Your task to perform on an android device: What's the weather going to be tomorrow? Image 0: 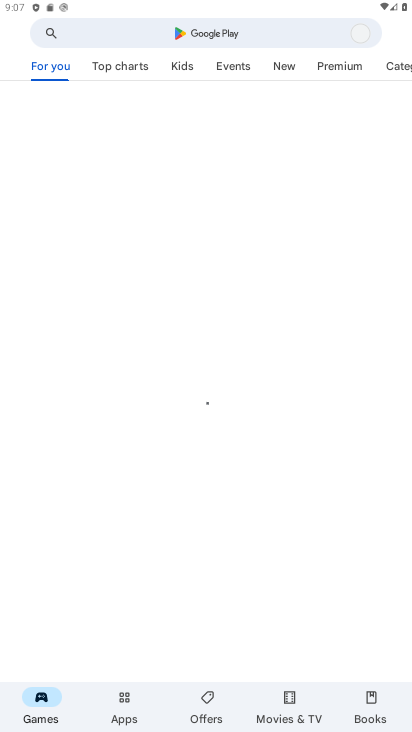
Step 0: press home button
Your task to perform on an android device: What's the weather going to be tomorrow? Image 1: 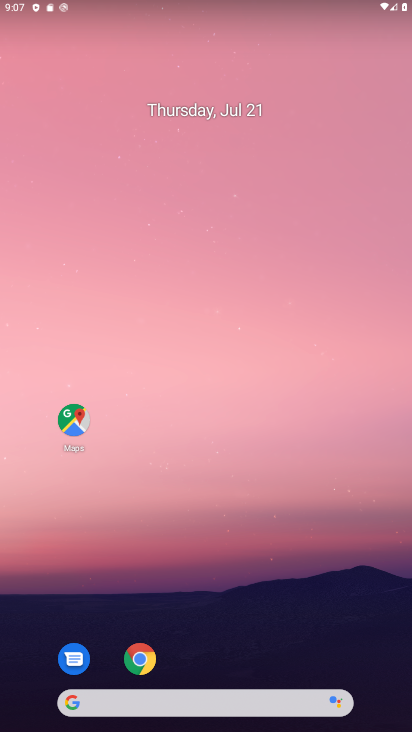
Step 1: click (198, 715)
Your task to perform on an android device: What's the weather going to be tomorrow? Image 2: 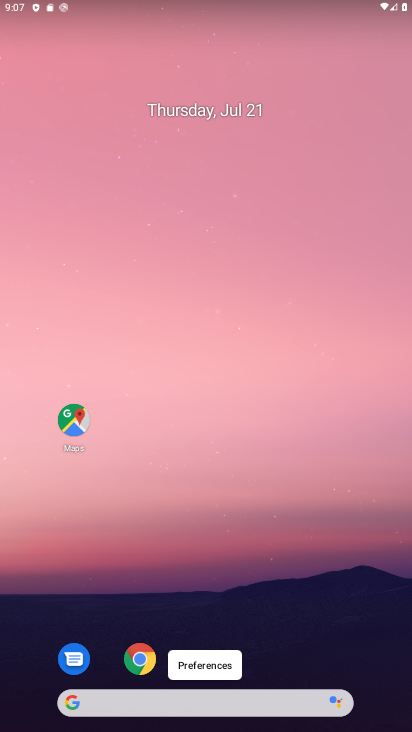
Step 2: click (211, 696)
Your task to perform on an android device: What's the weather going to be tomorrow? Image 3: 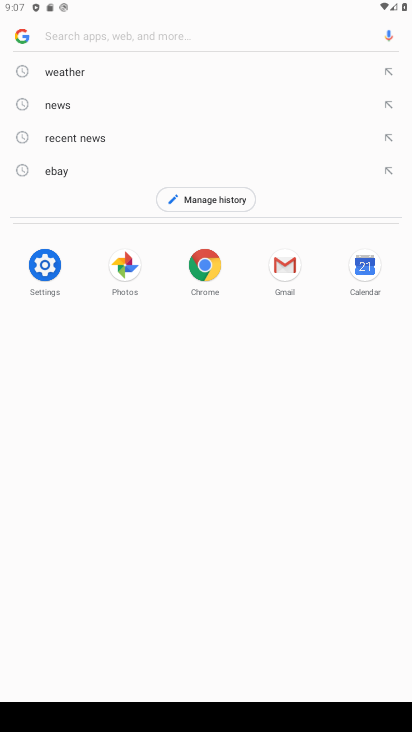
Step 3: click (85, 83)
Your task to perform on an android device: What's the weather going to be tomorrow? Image 4: 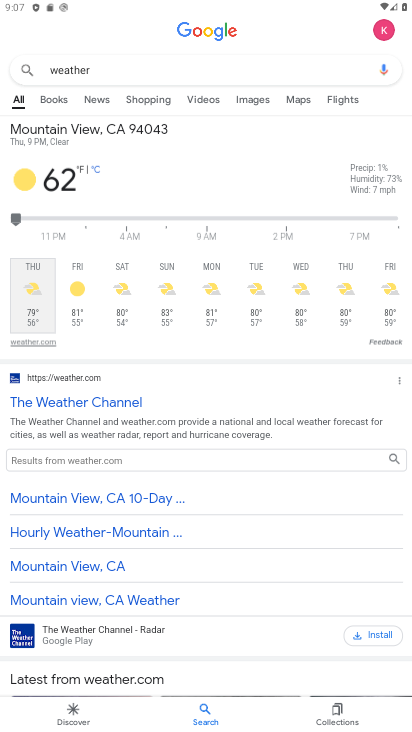
Step 4: click (64, 304)
Your task to perform on an android device: What's the weather going to be tomorrow? Image 5: 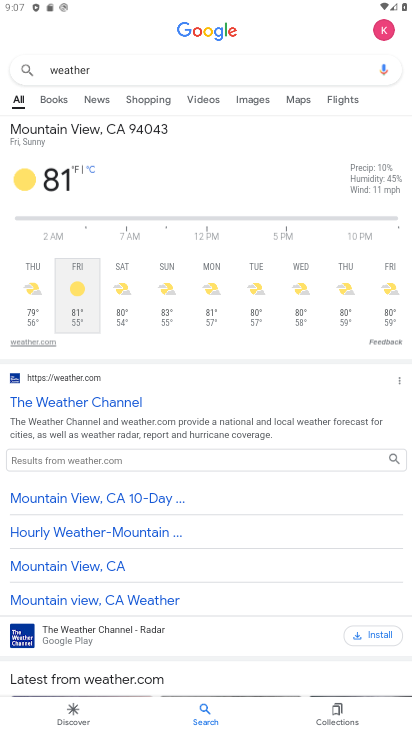
Step 5: task complete